Your task to perform on an android device: check battery use Image 0: 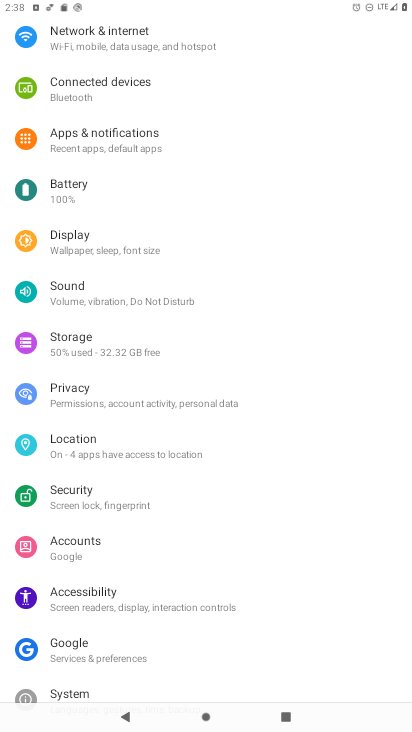
Step 0: click (75, 185)
Your task to perform on an android device: check battery use Image 1: 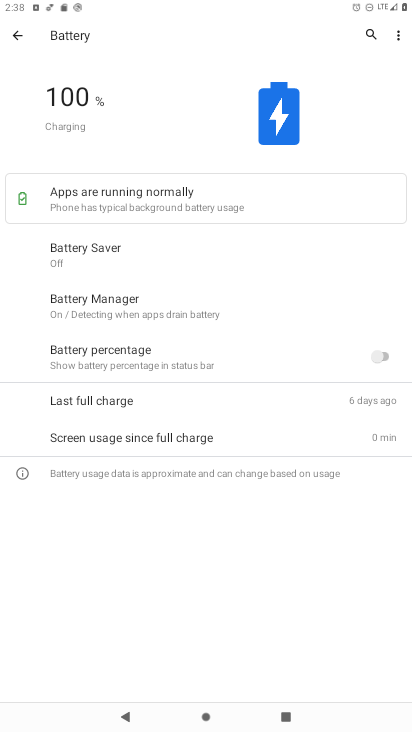
Step 1: click (396, 42)
Your task to perform on an android device: check battery use Image 2: 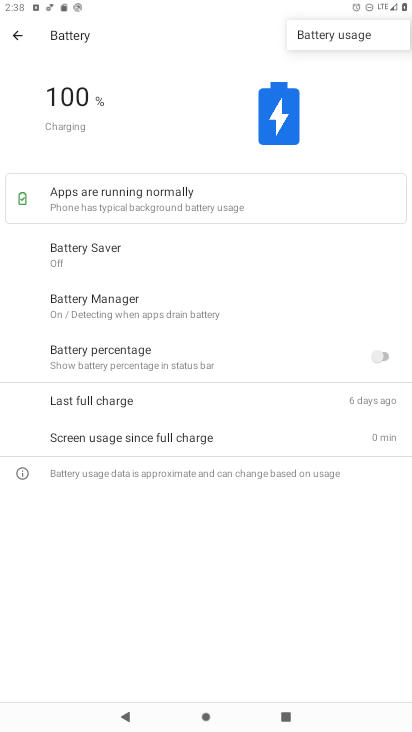
Step 2: click (323, 33)
Your task to perform on an android device: check battery use Image 3: 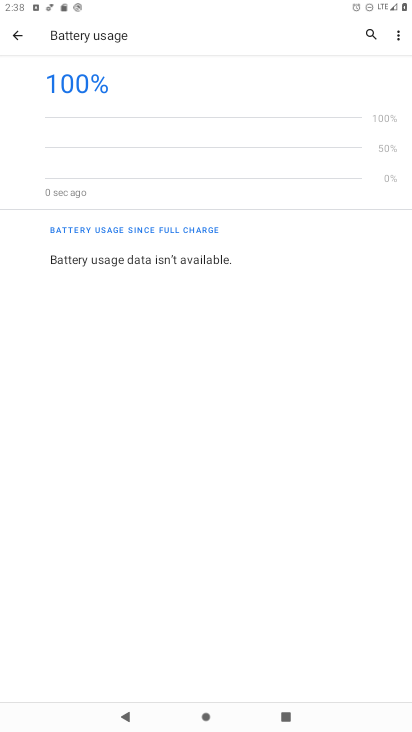
Step 3: task complete